Your task to perform on an android device: Open settings Image 0: 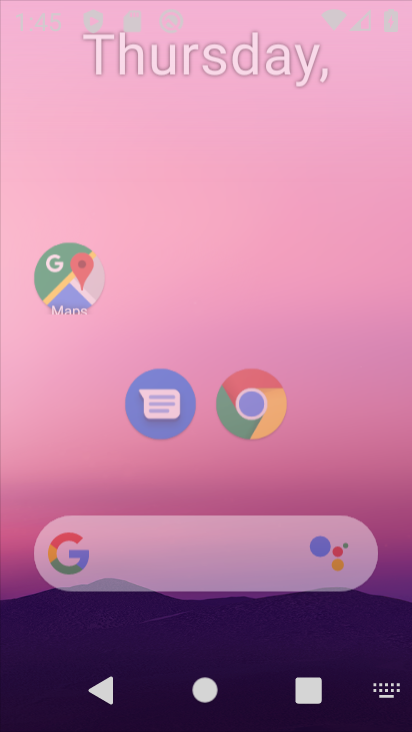
Step 0: click (194, 239)
Your task to perform on an android device: Open settings Image 1: 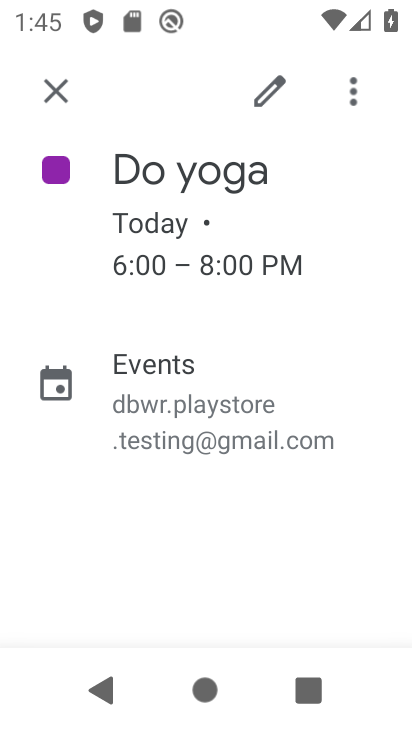
Step 1: press home button
Your task to perform on an android device: Open settings Image 2: 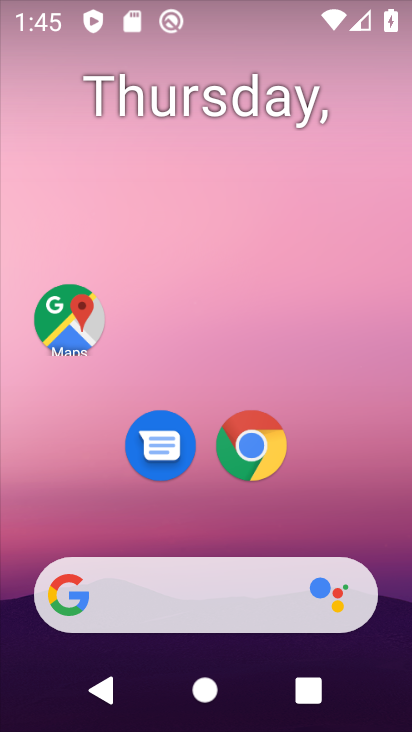
Step 2: drag from (209, 523) to (211, 154)
Your task to perform on an android device: Open settings Image 3: 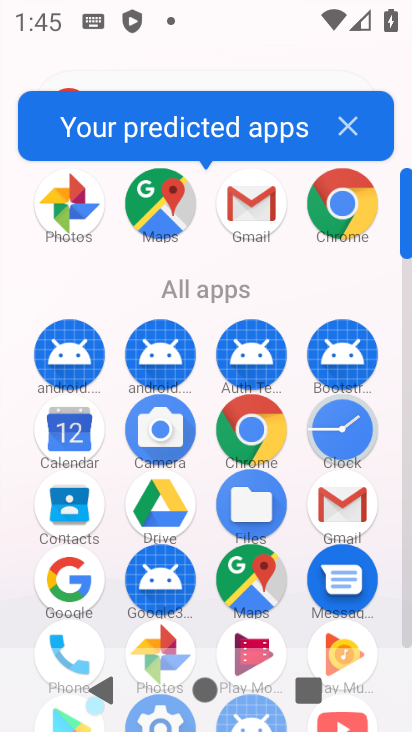
Step 3: drag from (201, 490) to (232, 173)
Your task to perform on an android device: Open settings Image 4: 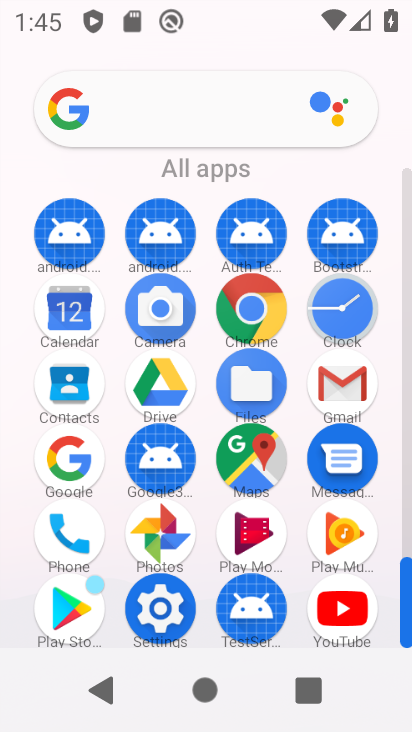
Step 4: click (159, 594)
Your task to perform on an android device: Open settings Image 5: 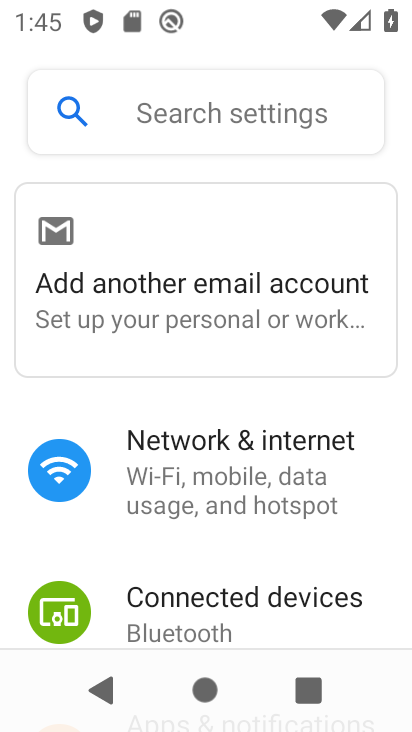
Step 5: task complete